Your task to perform on an android device: Search for alienware aurora on amazon, select the first entry, add it to the cart, then select checkout. Image 0: 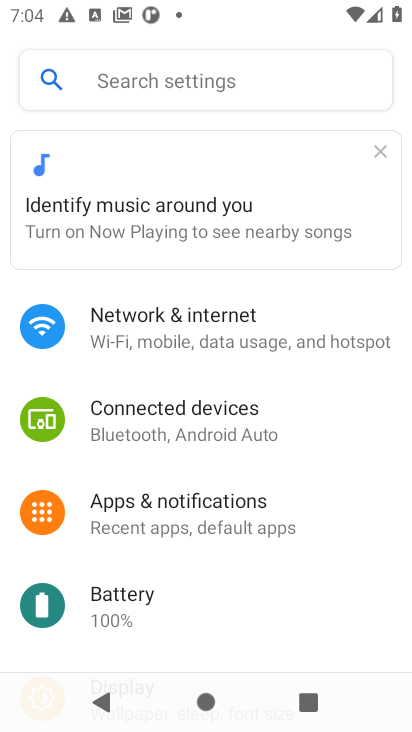
Step 0: press home button
Your task to perform on an android device: Search for alienware aurora on amazon, select the first entry, add it to the cart, then select checkout. Image 1: 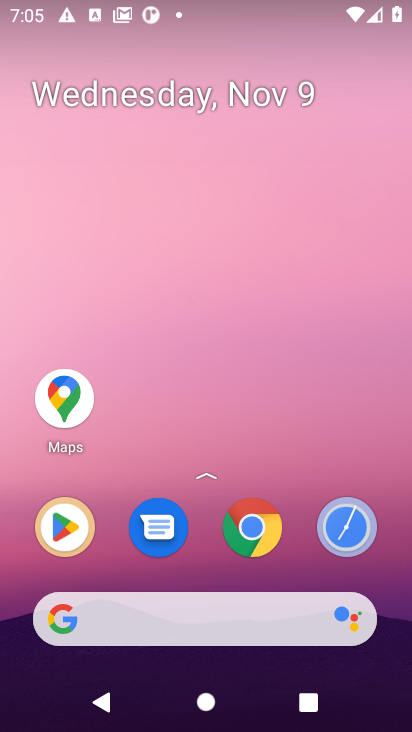
Step 1: click (248, 530)
Your task to perform on an android device: Search for alienware aurora on amazon, select the first entry, add it to the cart, then select checkout. Image 2: 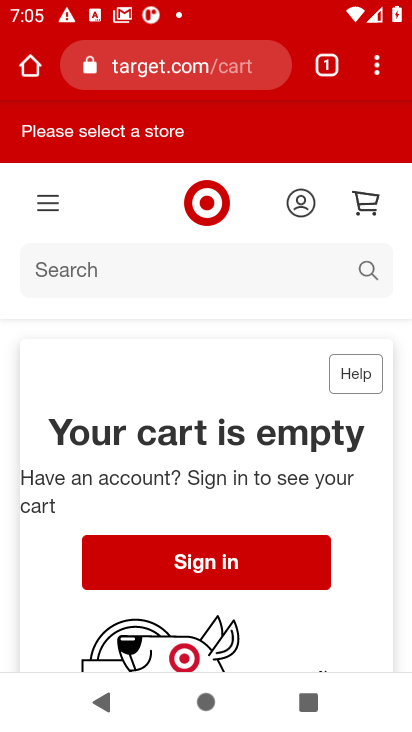
Step 2: click (190, 70)
Your task to perform on an android device: Search for alienware aurora on amazon, select the first entry, add it to the cart, then select checkout. Image 3: 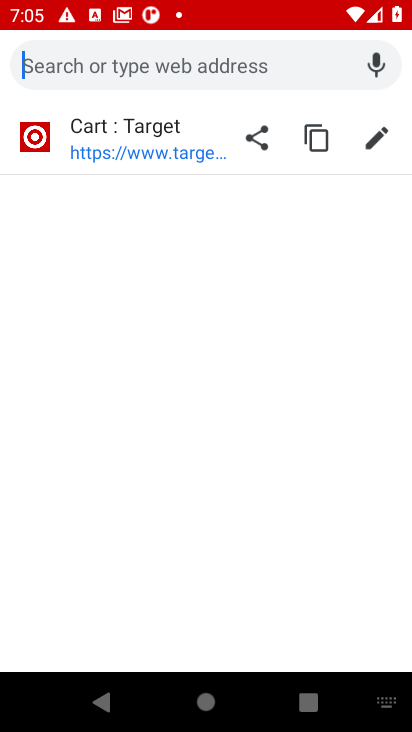
Step 3: type "amazon.com"
Your task to perform on an android device: Search for alienware aurora on amazon, select the first entry, add it to the cart, then select checkout. Image 4: 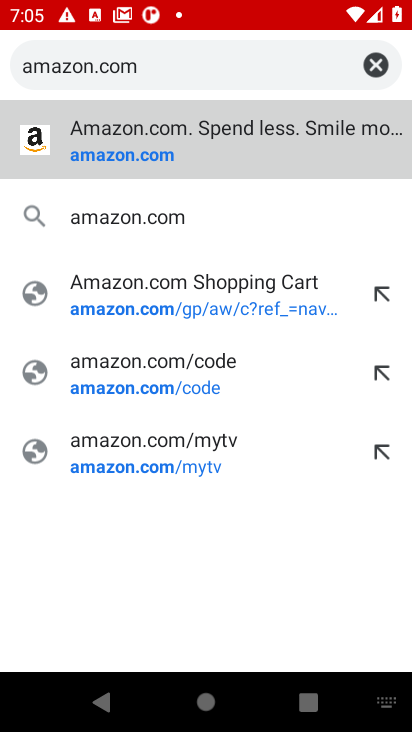
Step 4: click (169, 158)
Your task to perform on an android device: Search for alienware aurora on amazon, select the first entry, add it to the cart, then select checkout. Image 5: 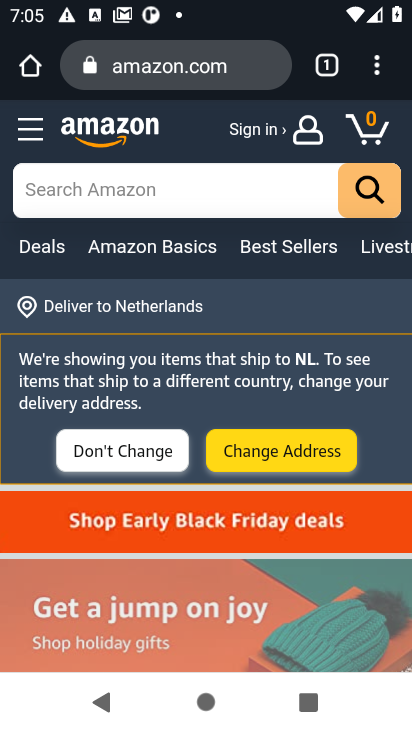
Step 5: click (146, 195)
Your task to perform on an android device: Search for alienware aurora on amazon, select the first entry, add it to the cart, then select checkout. Image 6: 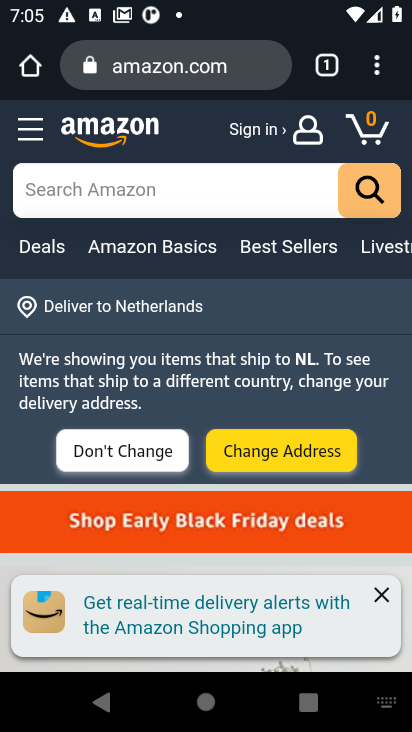
Step 6: type "alienware aurora"
Your task to perform on an android device: Search for alienware aurora on amazon, select the first entry, add it to the cart, then select checkout. Image 7: 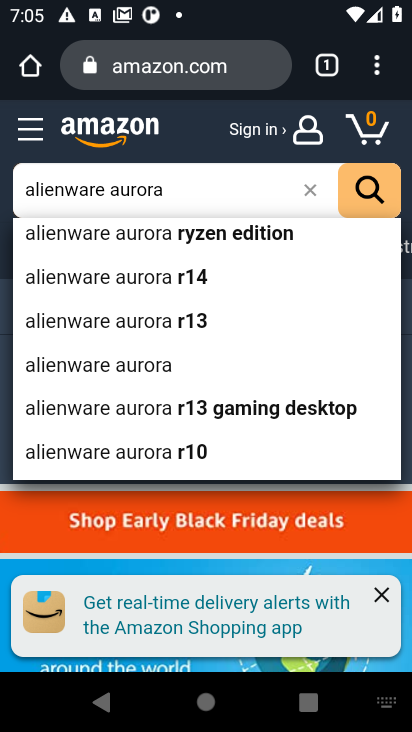
Step 7: click (78, 363)
Your task to perform on an android device: Search for alienware aurora on amazon, select the first entry, add it to the cart, then select checkout. Image 8: 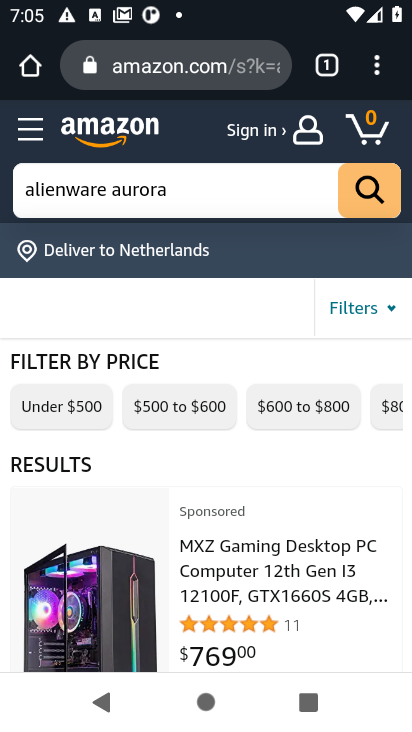
Step 8: task complete